Your task to perform on an android device: open a bookmark in the chrome app Image 0: 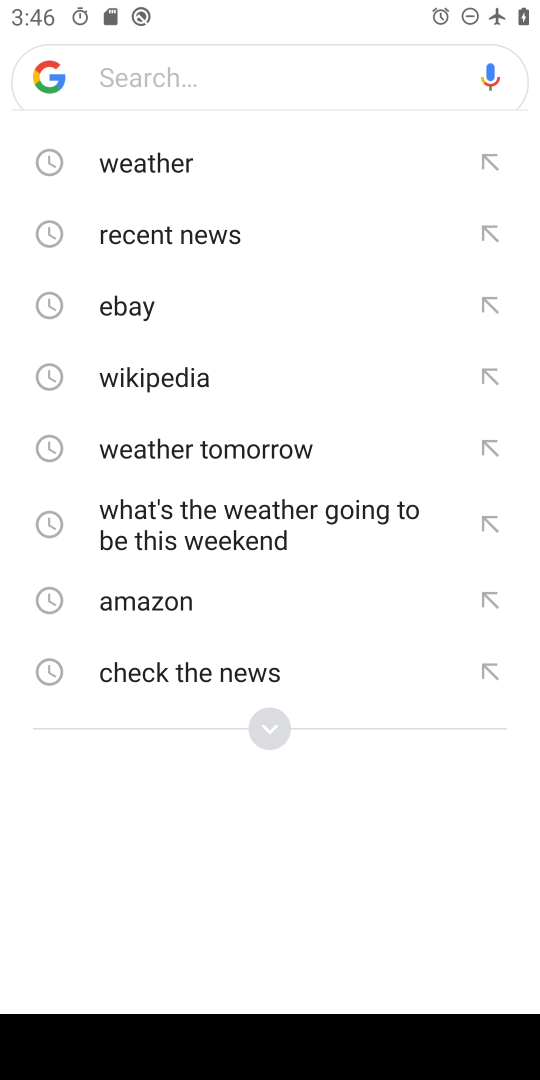
Step 0: press back button
Your task to perform on an android device: open a bookmark in the chrome app Image 1: 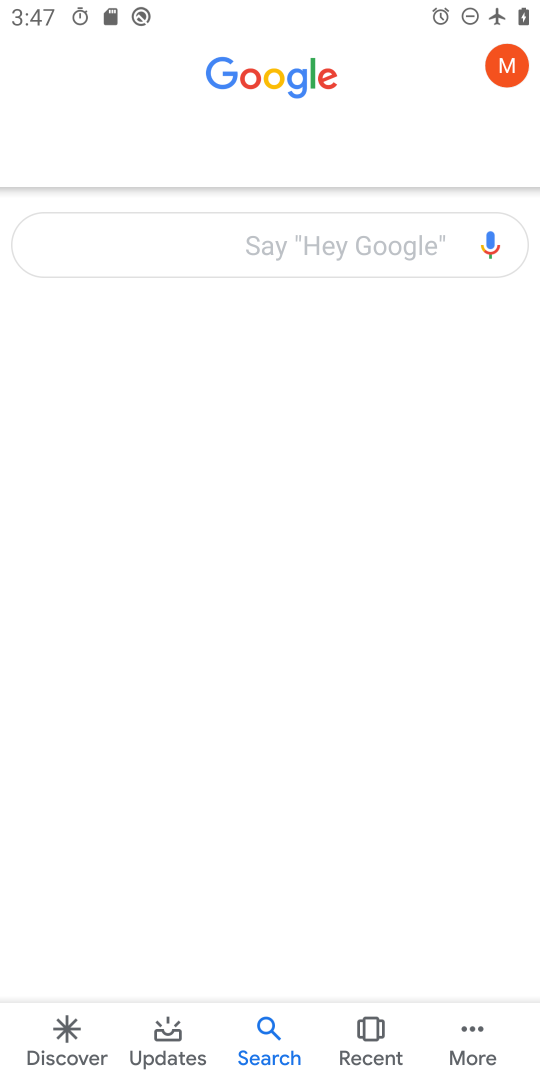
Step 1: click (509, 67)
Your task to perform on an android device: open a bookmark in the chrome app Image 2: 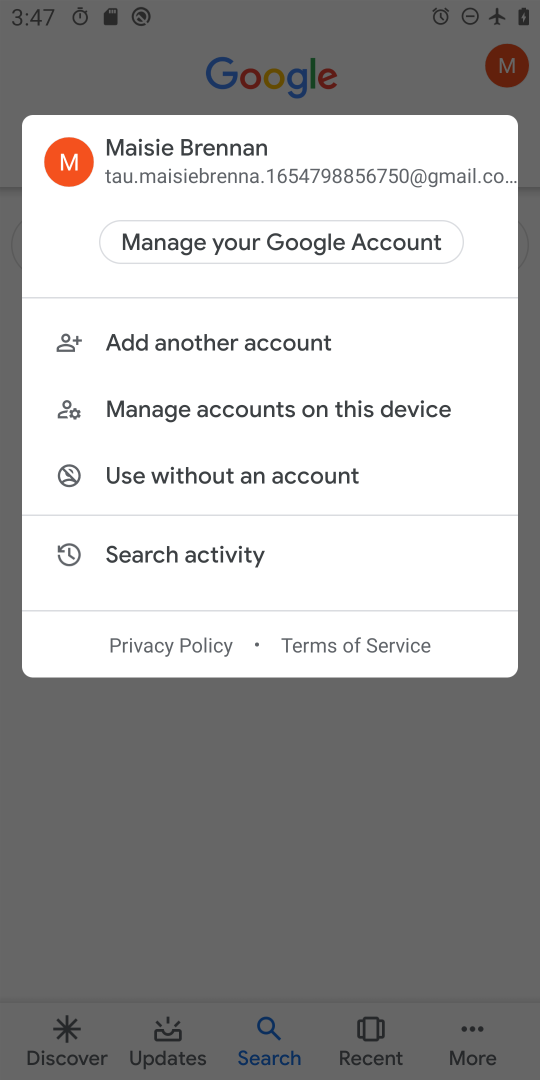
Step 2: press back button
Your task to perform on an android device: open a bookmark in the chrome app Image 3: 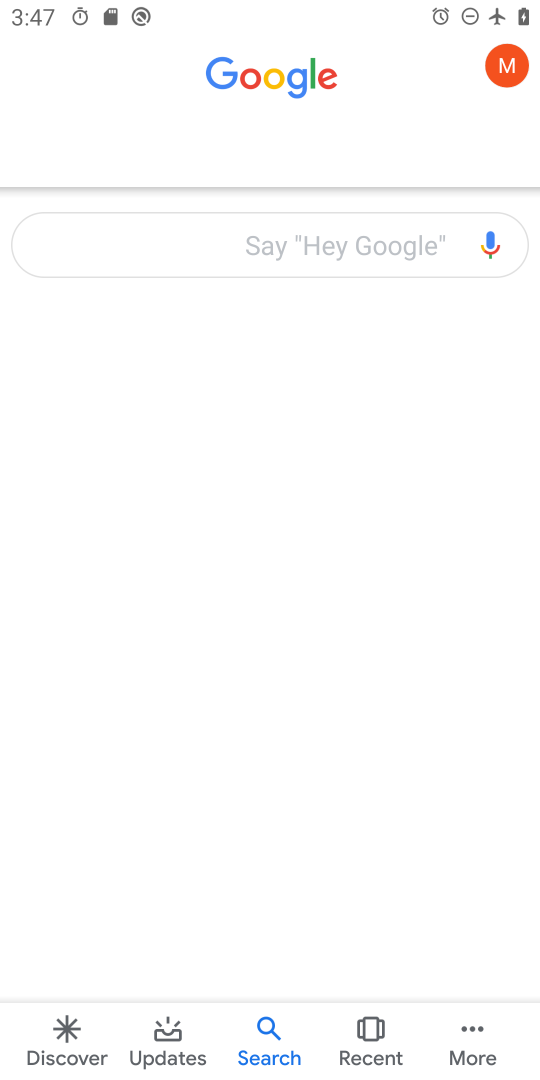
Step 3: press back button
Your task to perform on an android device: open a bookmark in the chrome app Image 4: 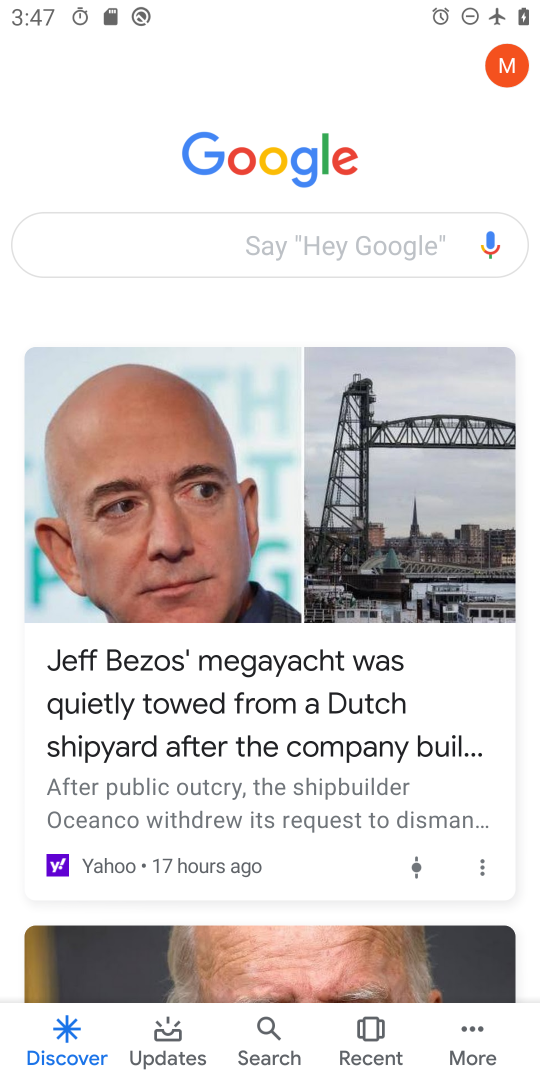
Step 4: press back button
Your task to perform on an android device: open a bookmark in the chrome app Image 5: 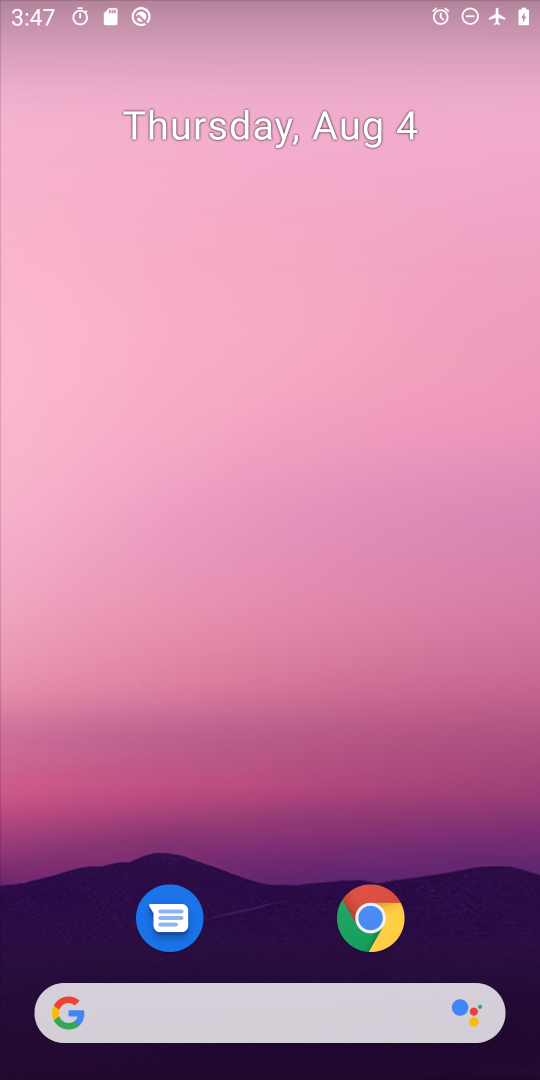
Step 5: press home button
Your task to perform on an android device: open a bookmark in the chrome app Image 6: 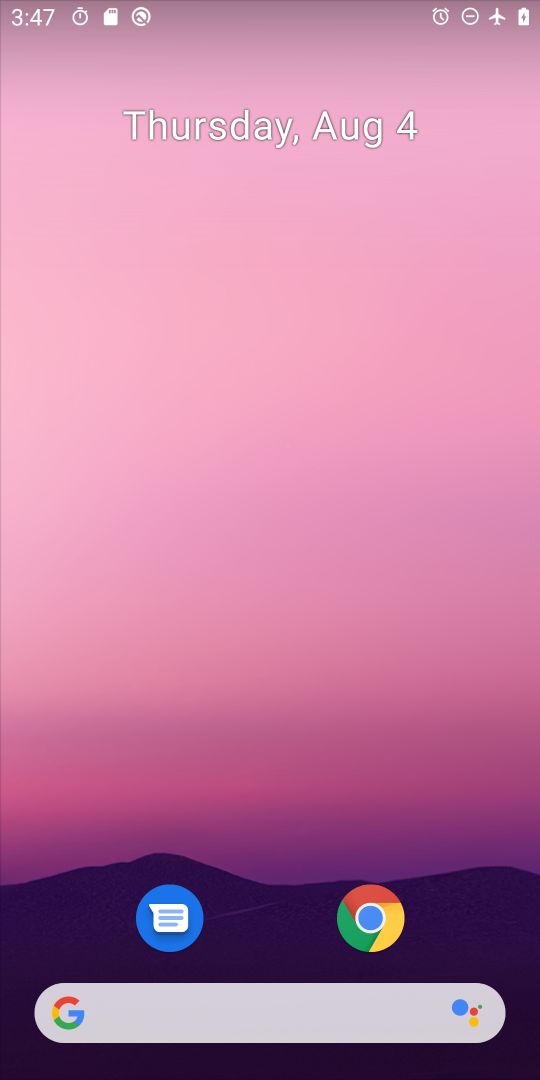
Step 6: click (355, 896)
Your task to perform on an android device: open a bookmark in the chrome app Image 7: 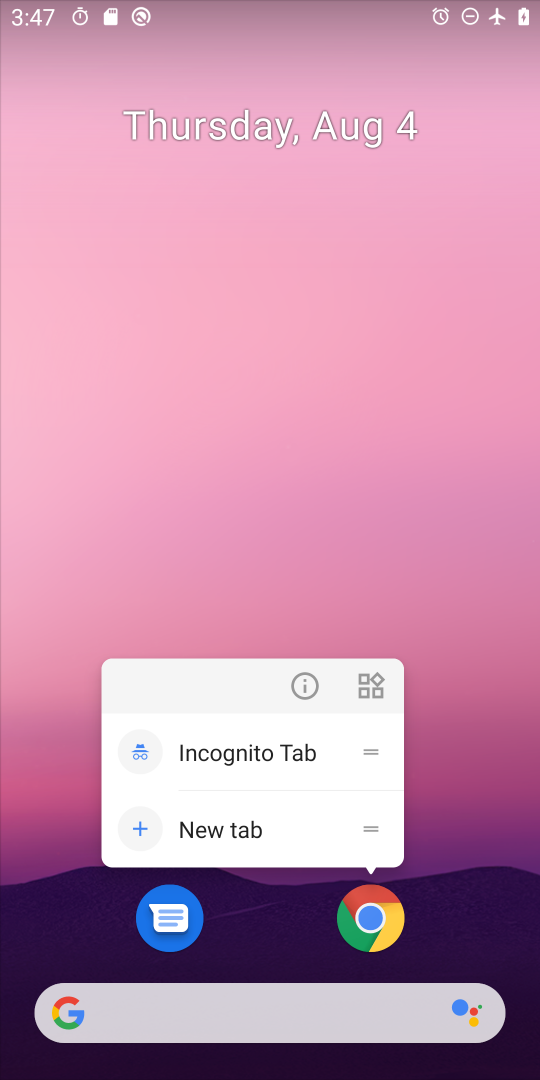
Step 7: click (392, 940)
Your task to perform on an android device: open a bookmark in the chrome app Image 8: 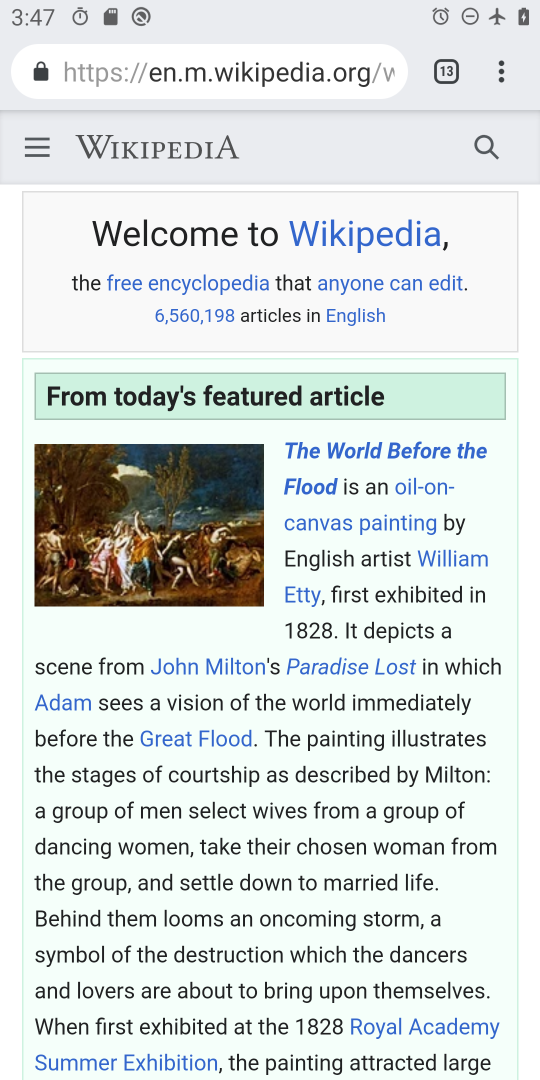
Step 8: drag from (505, 79) to (356, 268)
Your task to perform on an android device: open a bookmark in the chrome app Image 9: 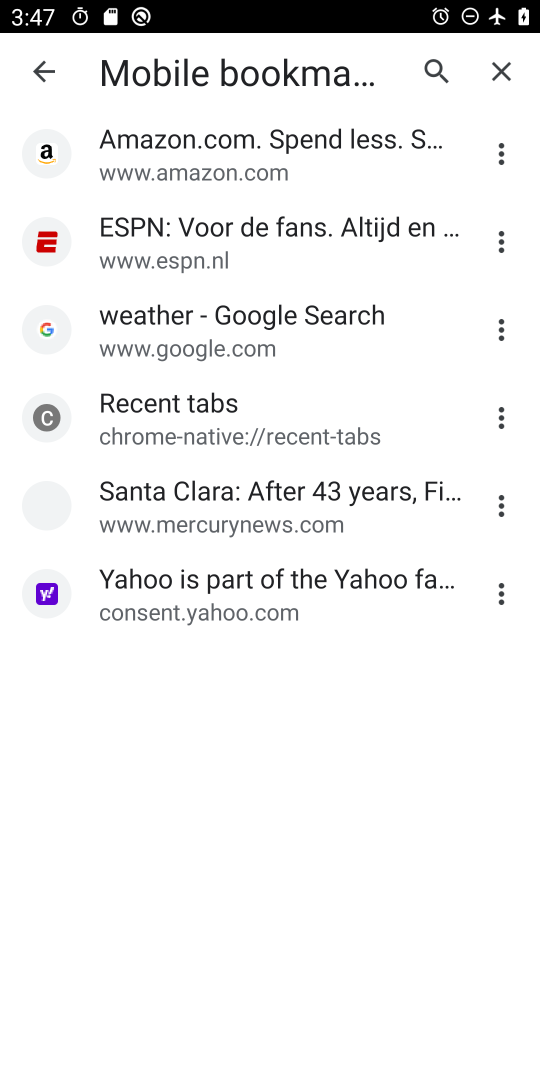
Step 9: click (179, 259)
Your task to perform on an android device: open a bookmark in the chrome app Image 10: 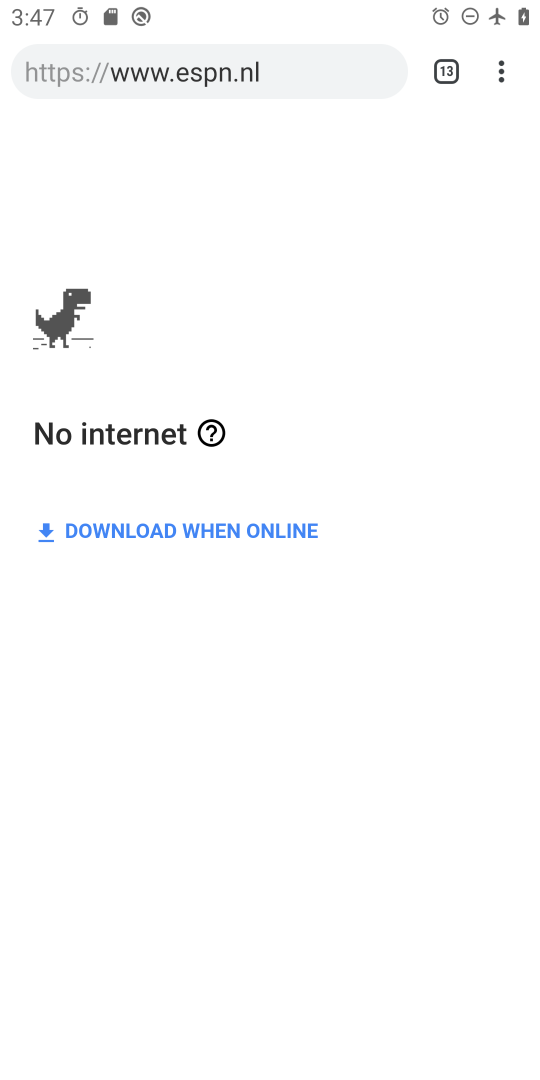
Step 10: task complete